Your task to perform on an android device: toggle data saver in the chrome app Image 0: 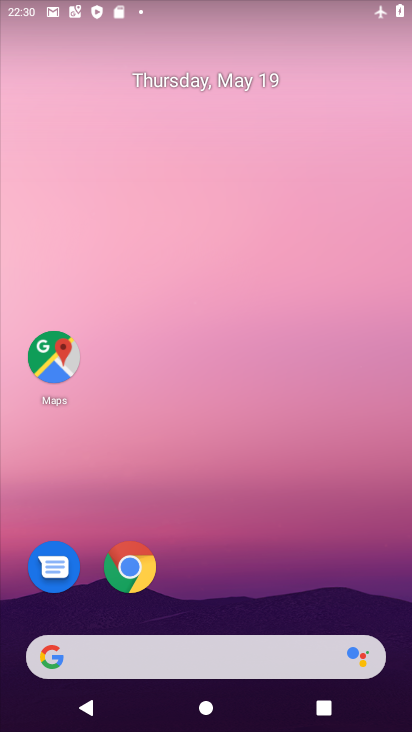
Step 0: press home button
Your task to perform on an android device: toggle data saver in the chrome app Image 1: 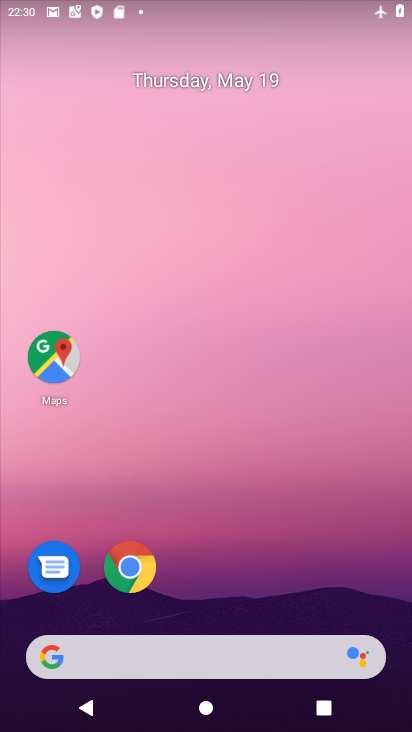
Step 1: click (128, 567)
Your task to perform on an android device: toggle data saver in the chrome app Image 2: 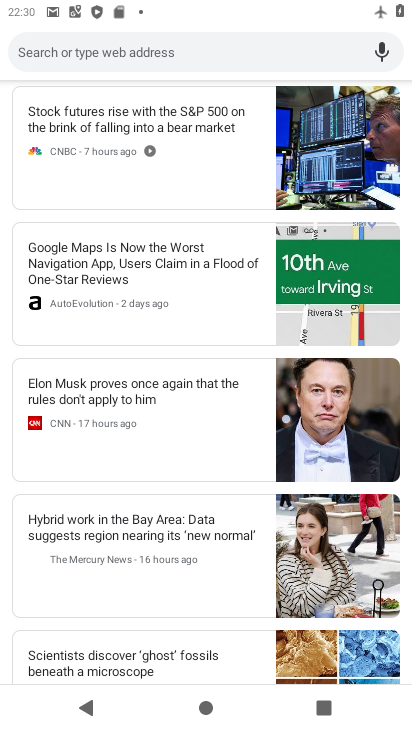
Step 2: drag from (183, 139) to (181, 483)
Your task to perform on an android device: toggle data saver in the chrome app Image 3: 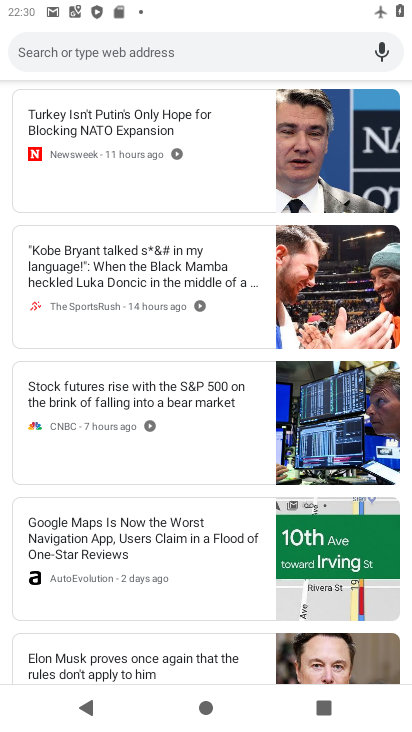
Step 3: drag from (141, 141) to (157, 687)
Your task to perform on an android device: toggle data saver in the chrome app Image 4: 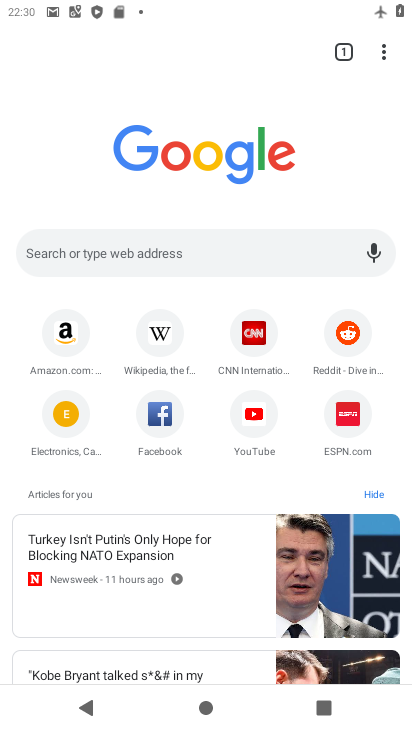
Step 4: click (388, 44)
Your task to perform on an android device: toggle data saver in the chrome app Image 5: 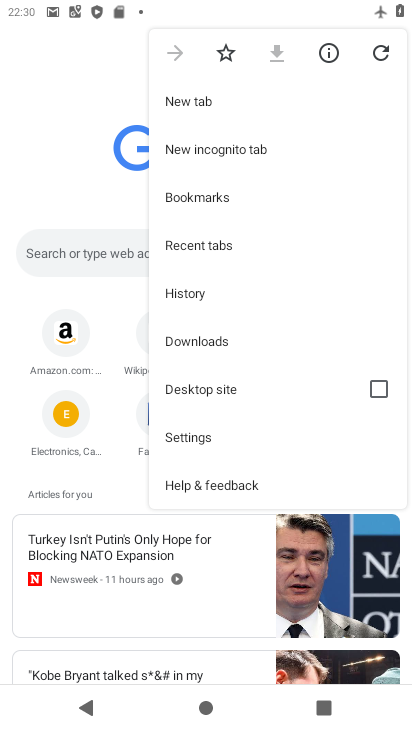
Step 5: click (223, 437)
Your task to perform on an android device: toggle data saver in the chrome app Image 6: 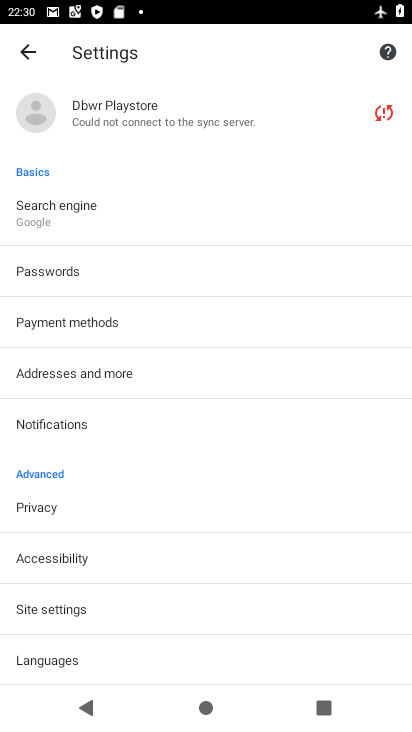
Step 6: drag from (104, 611) to (181, 239)
Your task to perform on an android device: toggle data saver in the chrome app Image 7: 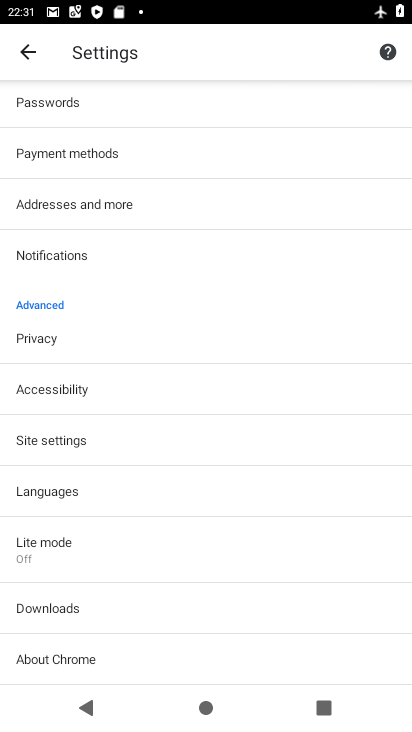
Step 7: click (67, 537)
Your task to perform on an android device: toggle data saver in the chrome app Image 8: 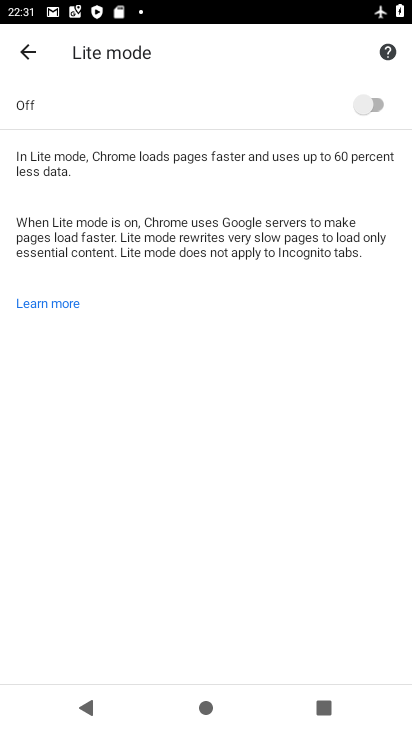
Step 8: click (369, 99)
Your task to perform on an android device: toggle data saver in the chrome app Image 9: 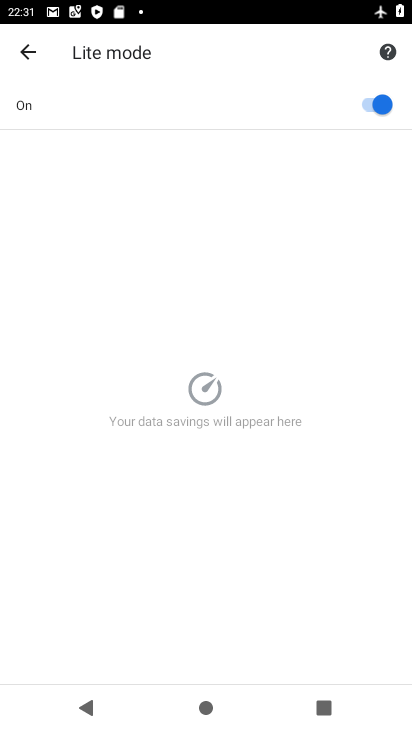
Step 9: task complete